Your task to perform on an android device: turn pop-ups on in chrome Image 0: 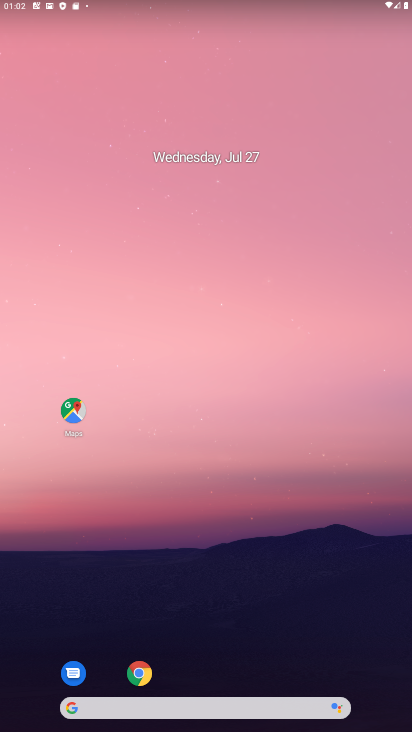
Step 0: drag from (251, 631) to (304, 154)
Your task to perform on an android device: turn pop-ups on in chrome Image 1: 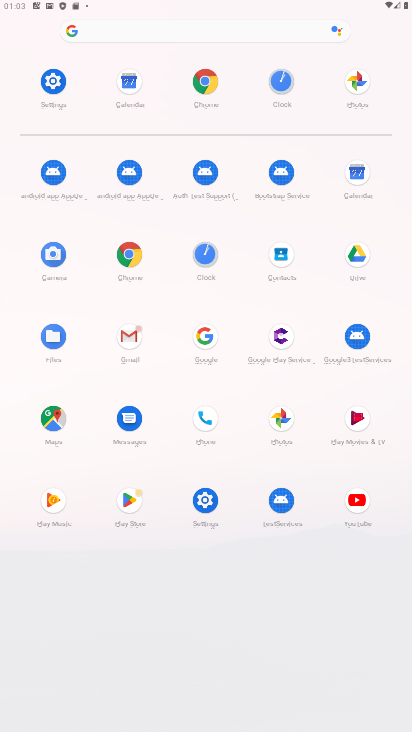
Step 1: click (213, 88)
Your task to perform on an android device: turn pop-ups on in chrome Image 2: 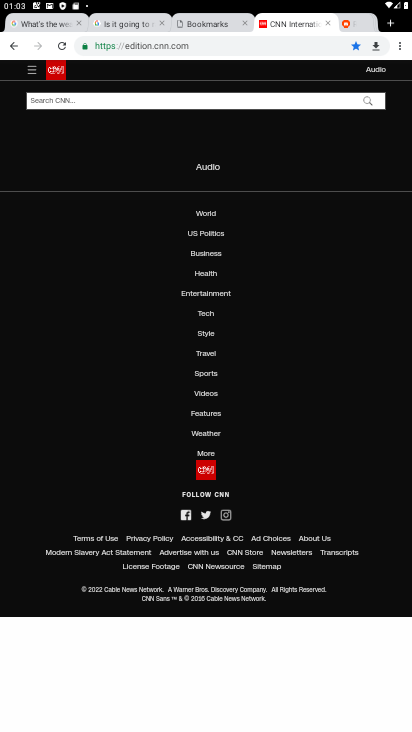
Step 2: click (405, 43)
Your task to perform on an android device: turn pop-ups on in chrome Image 3: 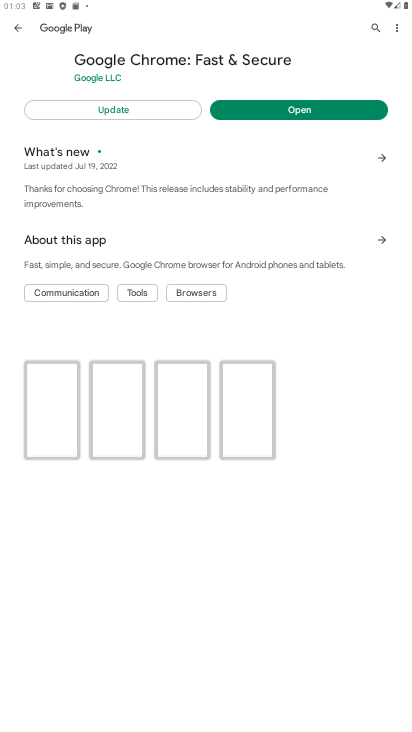
Step 3: click (405, 43)
Your task to perform on an android device: turn pop-ups on in chrome Image 4: 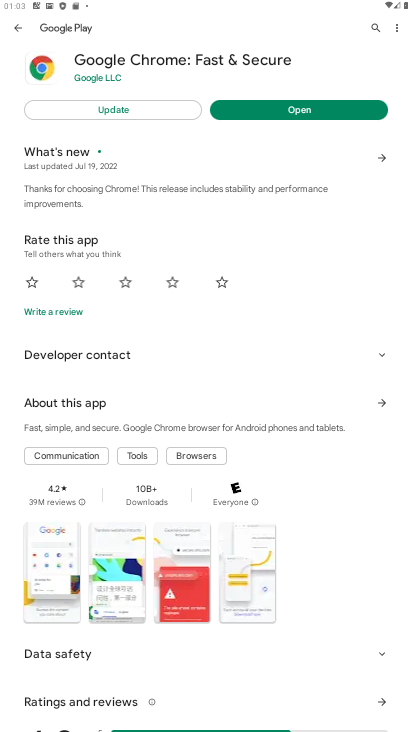
Step 4: click (13, 22)
Your task to perform on an android device: turn pop-ups on in chrome Image 5: 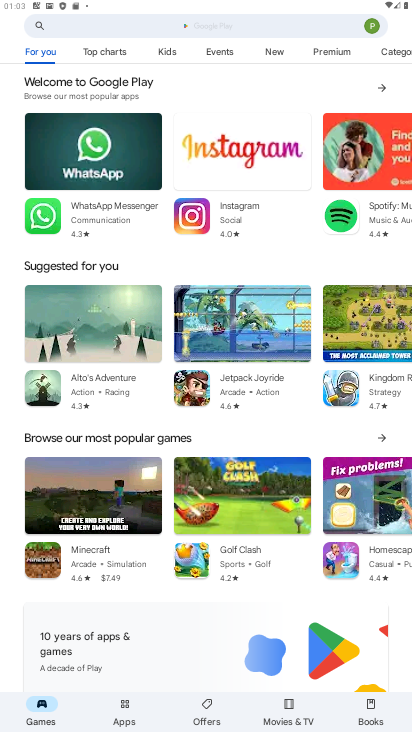
Step 5: press home button
Your task to perform on an android device: turn pop-ups on in chrome Image 6: 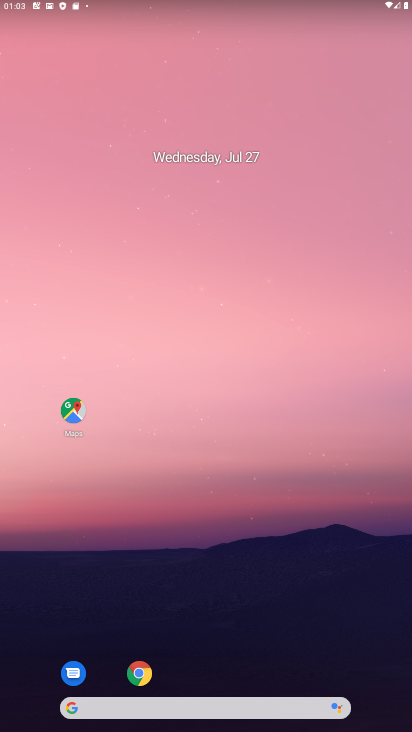
Step 6: click (145, 678)
Your task to perform on an android device: turn pop-ups on in chrome Image 7: 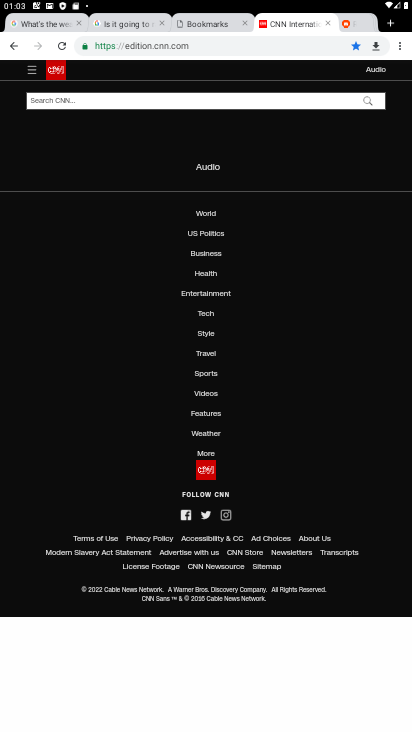
Step 7: click (403, 47)
Your task to perform on an android device: turn pop-ups on in chrome Image 8: 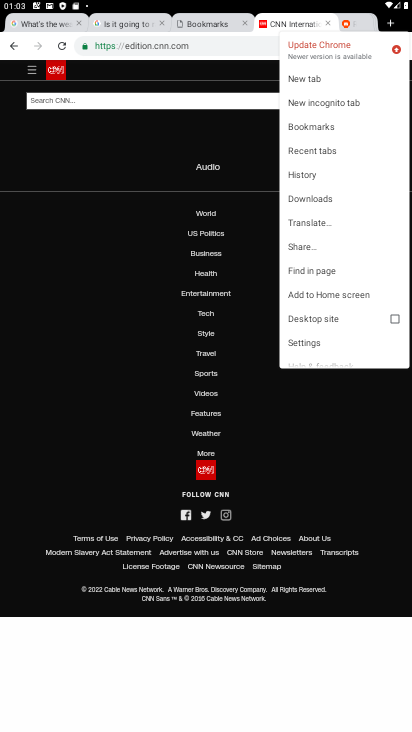
Step 8: click (316, 339)
Your task to perform on an android device: turn pop-ups on in chrome Image 9: 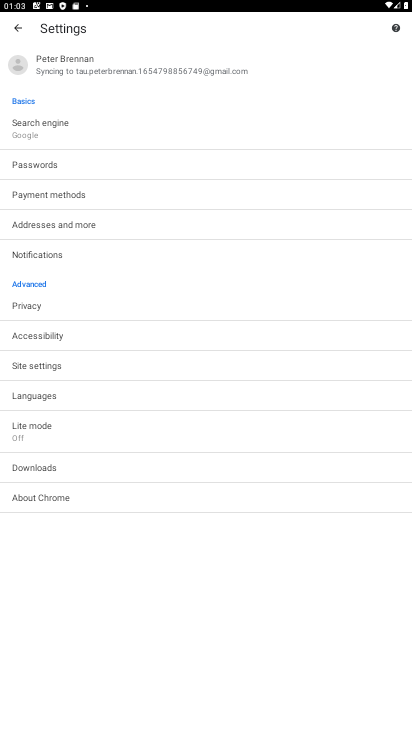
Step 9: click (64, 366)
Your task to perform on an android device: turn pop-ups on in chrome Image 10: 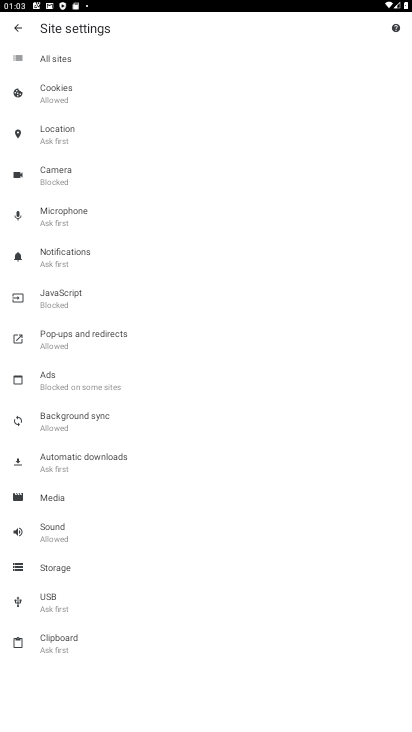
Step 10: click (85, 343)
Your task to perform on an android device: turn pop-ups on in chrome Image 11: 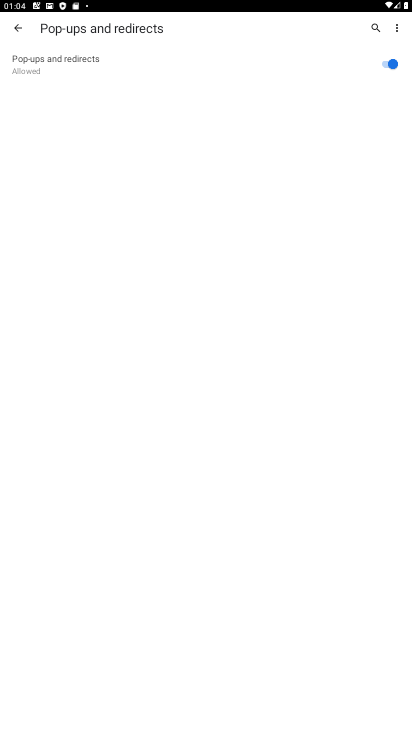
Step 11: task complete